Your task to perform on an android device: What is the capital of China? Image 0: 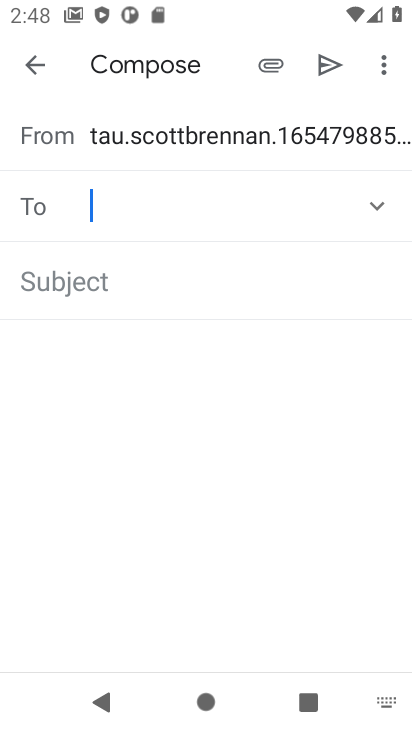
Step 0: press home button
Your task to perform on an android device: What is the capital of China? Image 1: 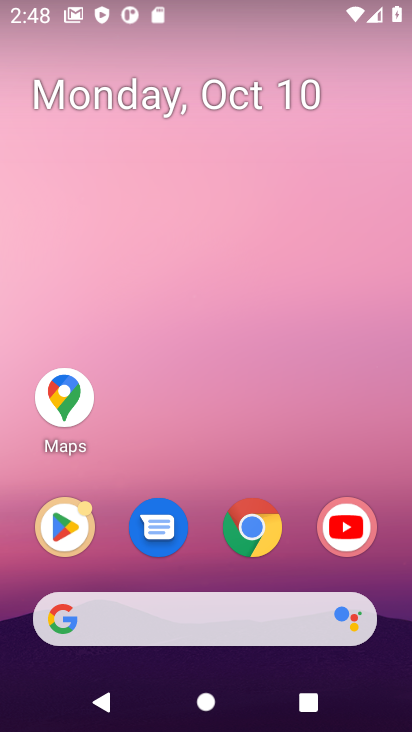
Step 1: click (223, 618)
Your task to perform on an android device: What is the capital of China? Image 2: 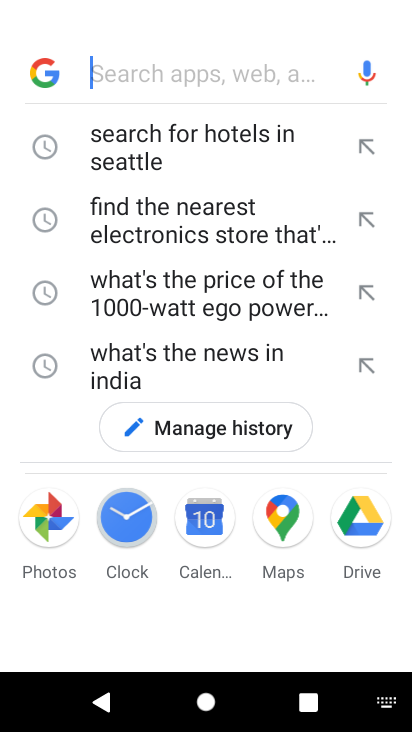
Step 2: type "What is the capital of China"
Your task to perform on an android device: What is the capital of China? Image 3: 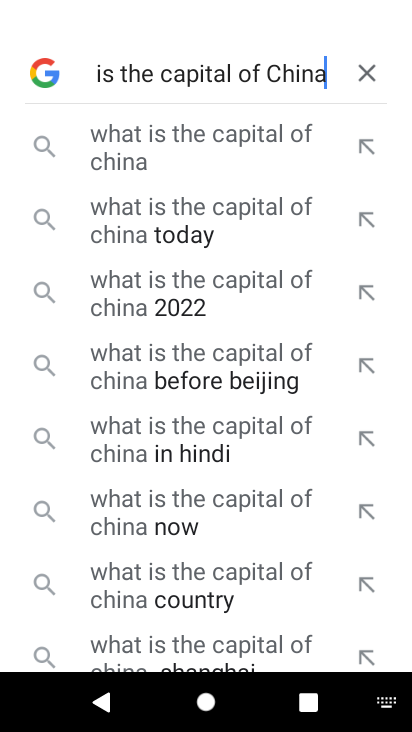
Step 3: press enter
Your task to perform on an android device: What is the capital of China? Image 4: 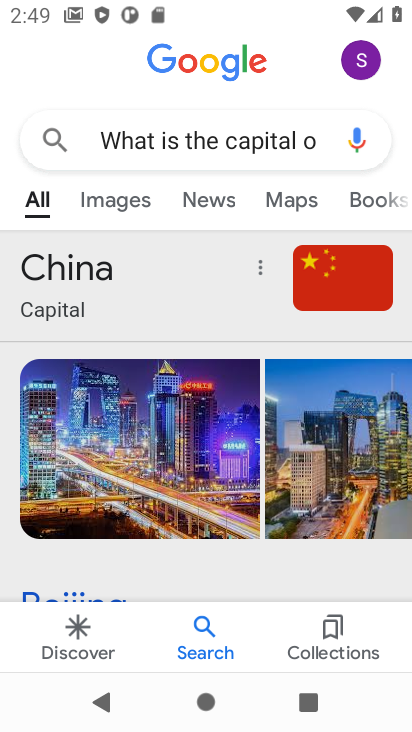
Step 4: task complete